Your task to perform on an android device: Go to Google maps Image 0: 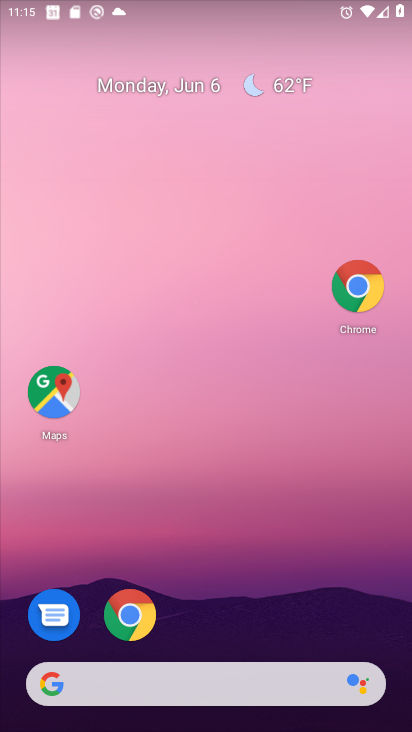
Step 0: drag from (237, 608) to (176, 169)
Your task to perform on an android device: Go to Google maps Image 1: 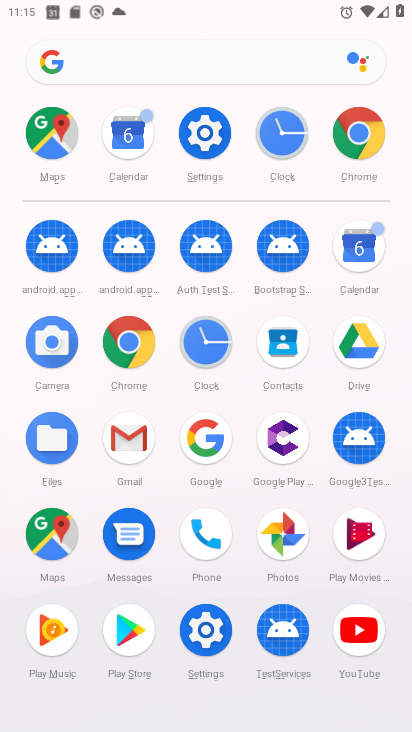
Step 1: click (50, 530)
Your task to perform on an android device: Go to Google maps Image 2: 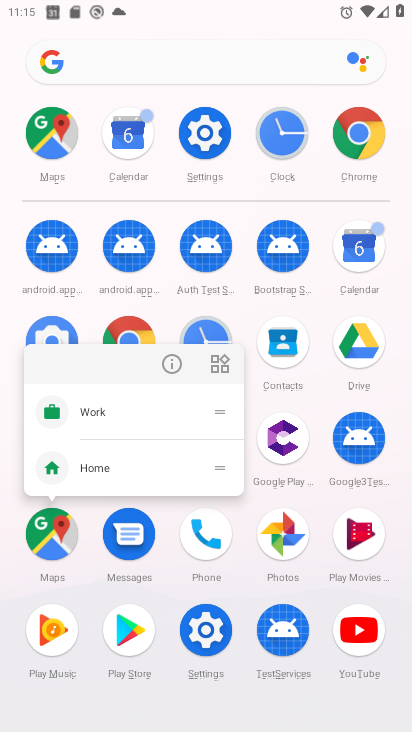
Step 2: click (44, 130)
Your task to perform on an android device: Go to Google maps Image 3: 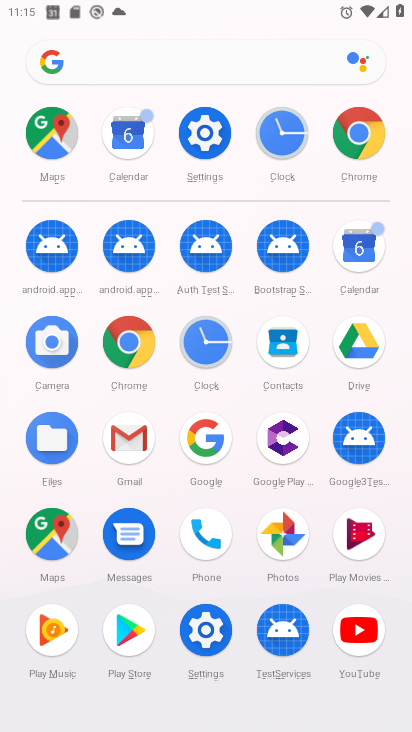
Step 3: click (45, 130)
Your task to perform on an android device: Go to Google maps Image 4: 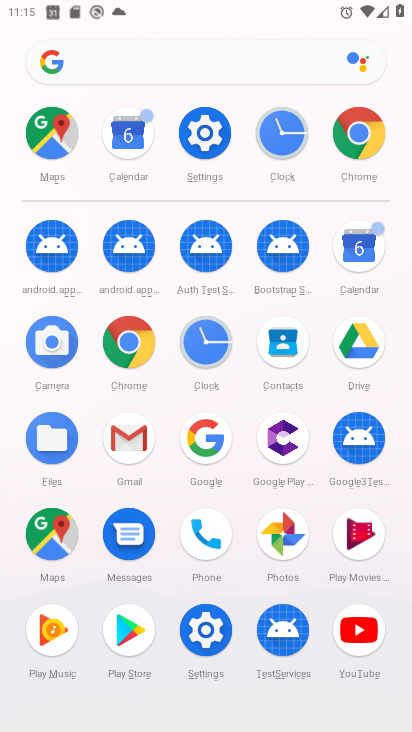
Step 4: click (45, 130)
Your task to perform on an android device: Go to Google maps Image 5: 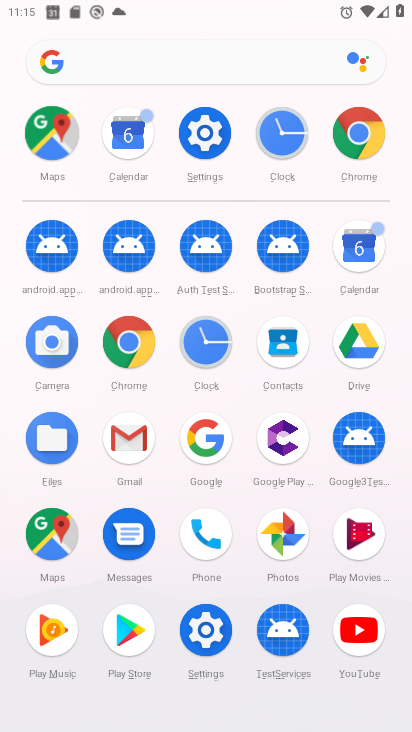
Step 5: click (45, 130)
Your task to perform on an android device: Go to Google maps Image 6: 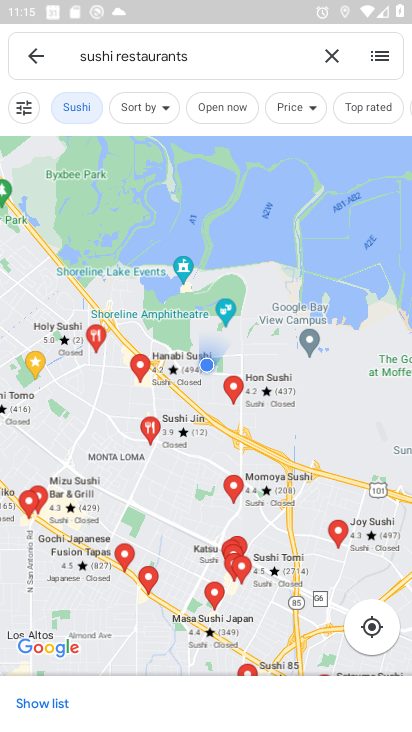
Step 6: click (331, 62)
Your task to perform on an android device: Go to Google maps Image 7: 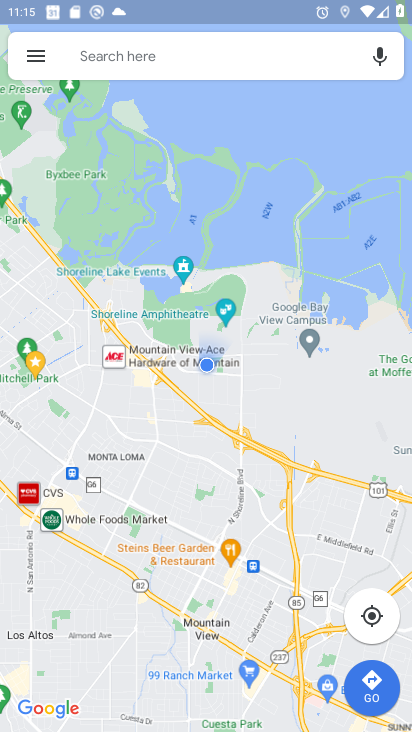
Step 7: task complete